Your task to perform on an android device: turn on sleep mode Image 0: 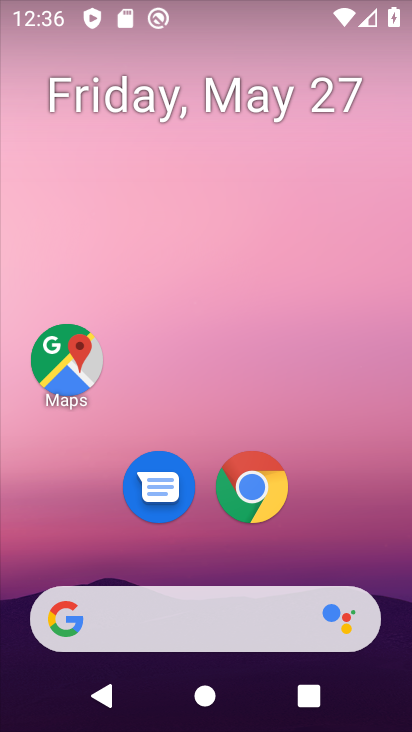
Step 0: drag from (205, 563) to (244, 5)
Your task to perform on an android device: turn on sleep mode Image 1: 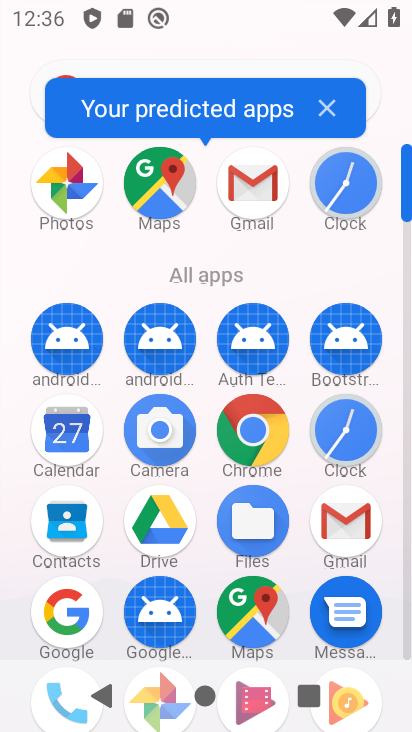
Step 1: drag from (202, 568) to (230, 126)
Your task to perform on an android device: turn on sleep mode Image 2: 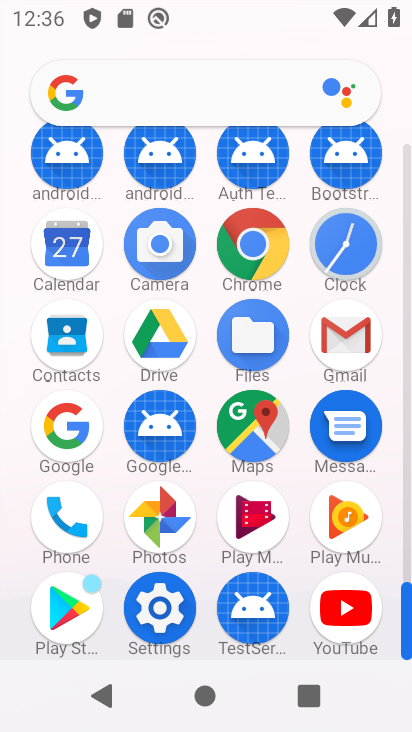
Step 2: click (163, 604)
Your task to perform on an android device: turn on sleep mode Image 3: 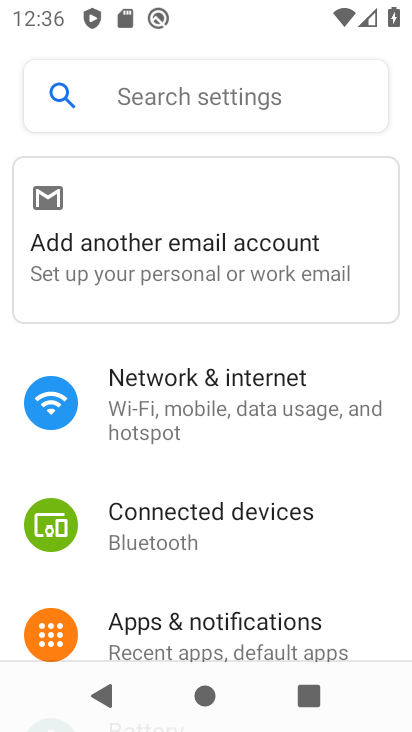
Step 3: drag from (238, 534) to (238, 120)
Your task to perform on an android device: turn on sleep mode Image 4: 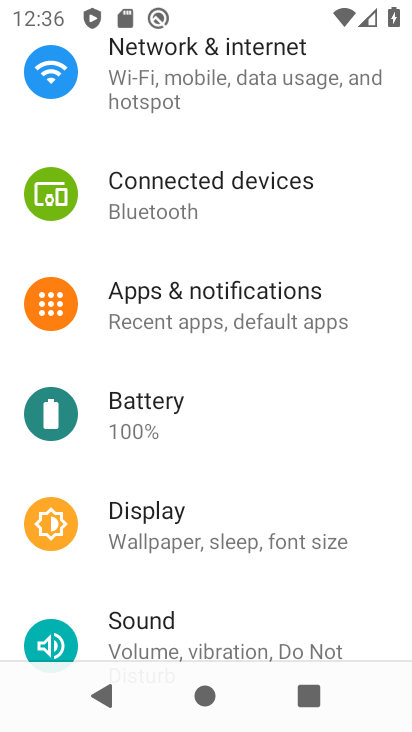
Step 4: click (209, 526)
Your task to perform on an android device: turn on sleep mode Image 5: 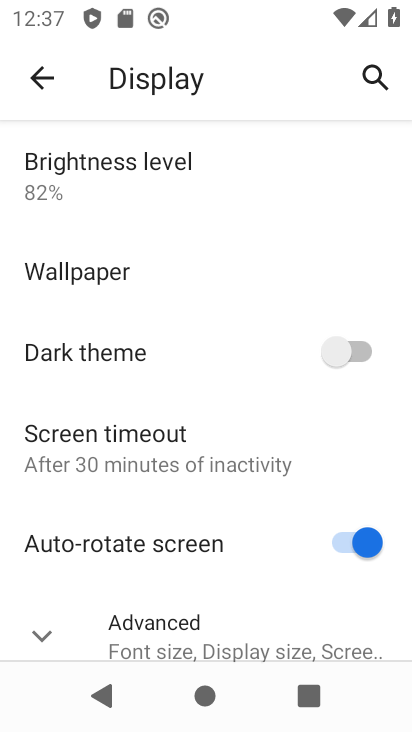
Step 5: click (167, 478)
Your task to perform on an android device: turn on sleep mode Image 6: 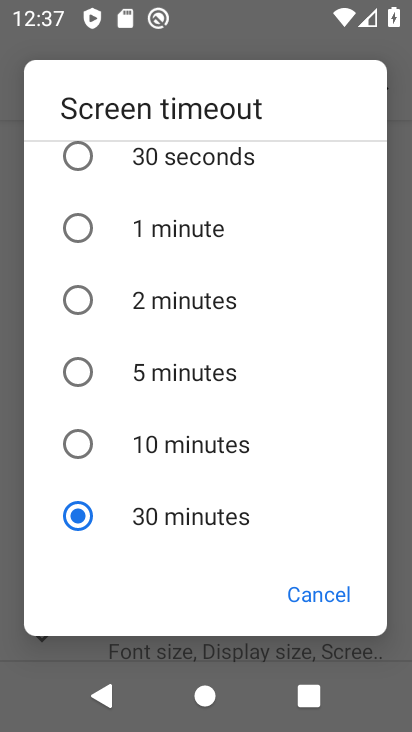
Step 6: task complete